Your task to perform on an android device: Open Reddit.com Image 0: 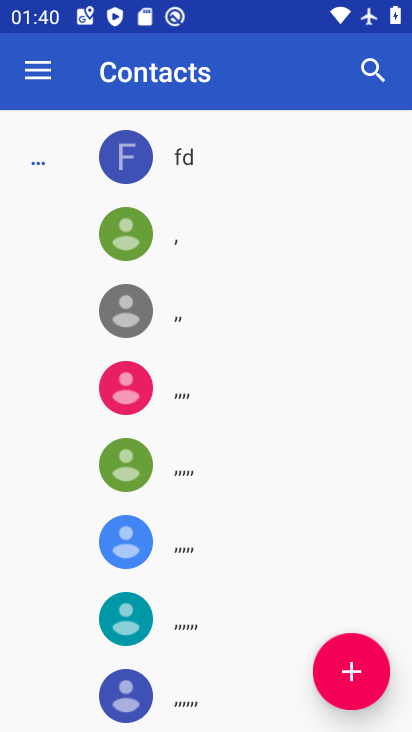
Step 0: press home button
Your task to perform on an android device: Open Reddit.com Image 1: 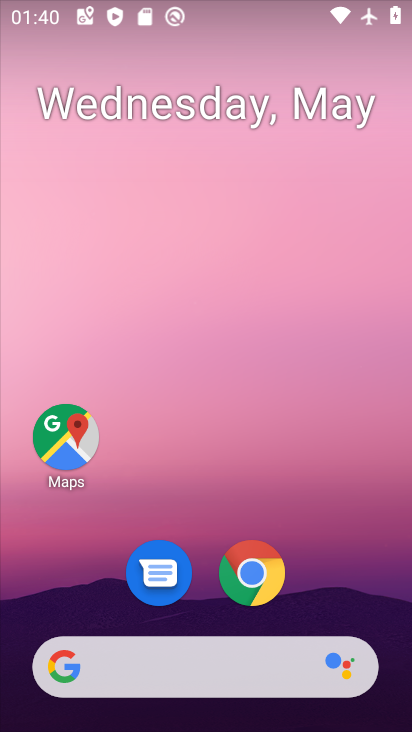
Step 1: drag from (327, 600) to (301, 222)
Your task to perform on an android device: Open Reddit.com Image 2: 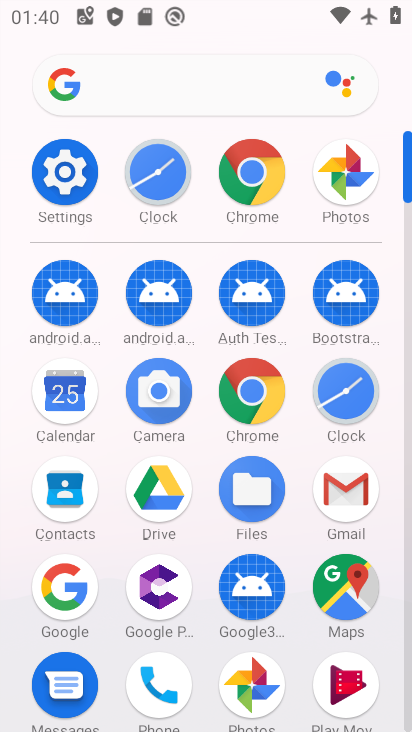
Step 2: click (248, 150)
Your task to perform on an android device: Open Reddit.com Image 3: 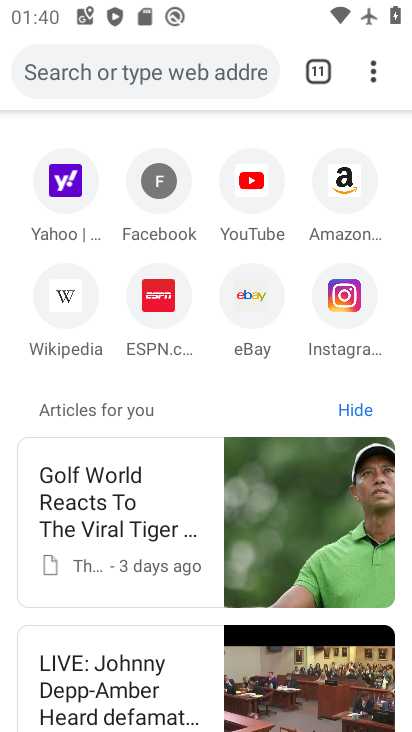
Step 3: click (304, 62)
Your task to perform on an android device: Open Reddit.com Image 4: 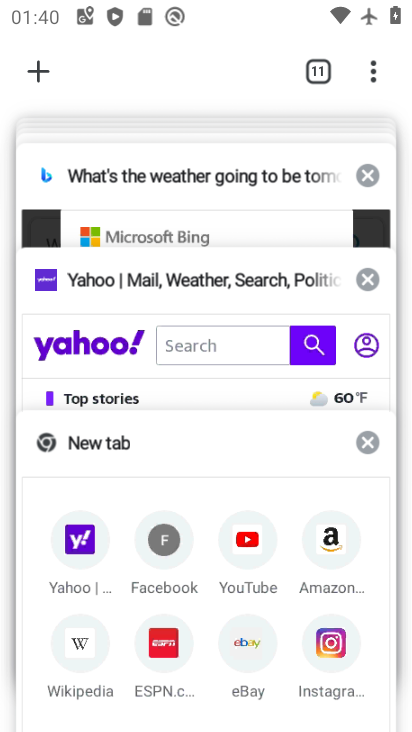
Step 4: drag from (233, 253) to (231, 645)
Your task to perform on an android device: Open Reddit.com Image 5: 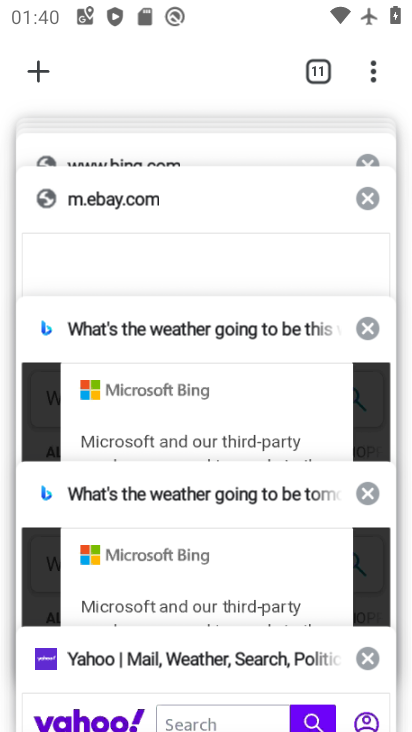
Step 5: drag from (214, 231) to (220, 659)
Your task to perform on an android device: Open Reddit.com Image 6: 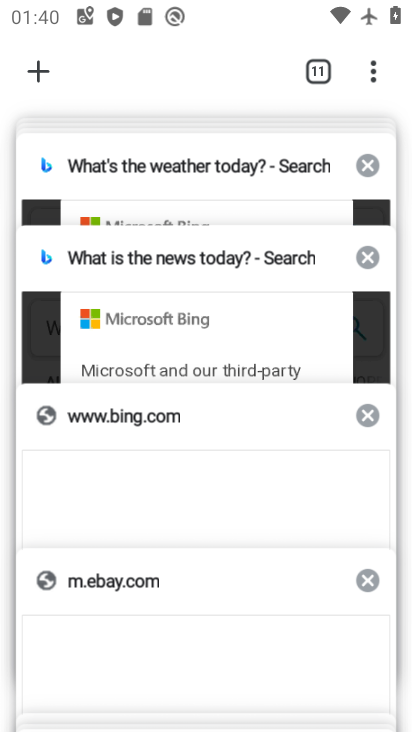
Step 6: drag from (206, 316) to (227, 652)
Your task to perform on an android device: Open Reddit.com Image 7: 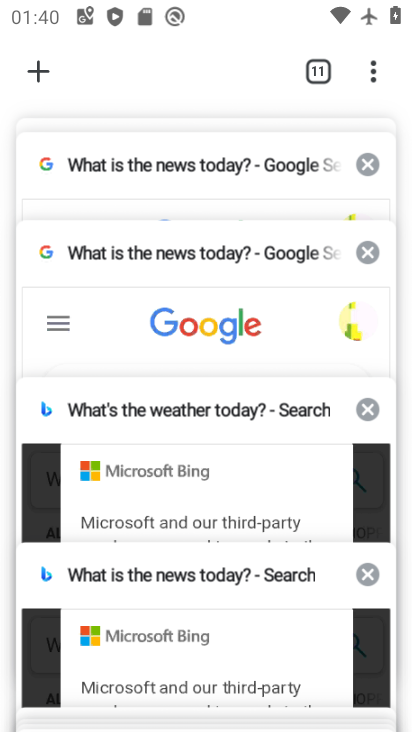
Step 7: drag from (211, 255) to (234, 585)
Your task to perform on an android device: Open Reddit.com Image 8: 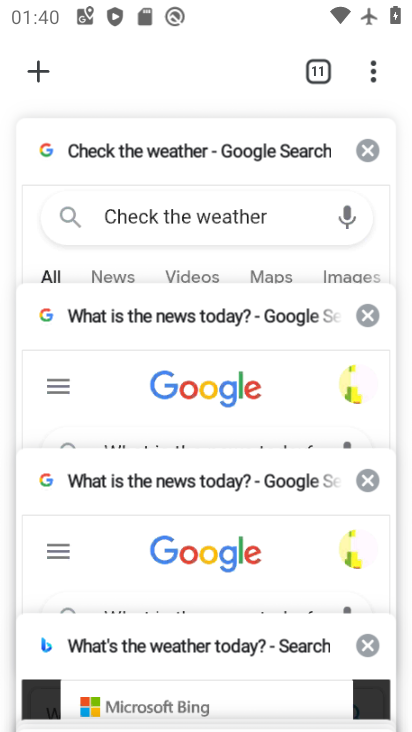
Step 8: drag from (172, 195) to (193, 621)
Your task to perform on an android device: Open Reddit.com Image 9: 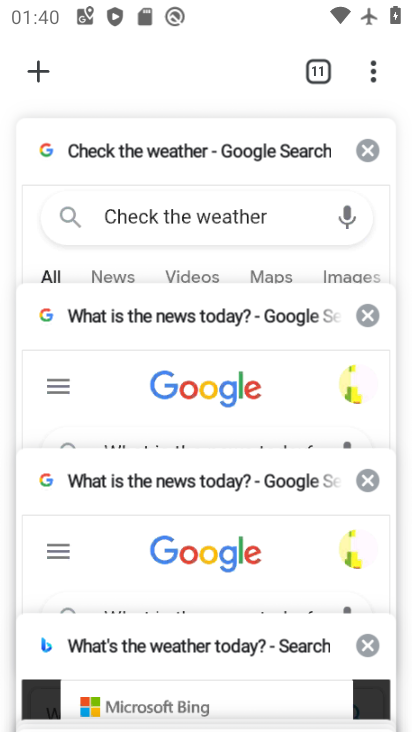
Step 9: drag from (196, 185) to (199, 558)
Your task to perform on an android device: Open Reddit.com Image 10: 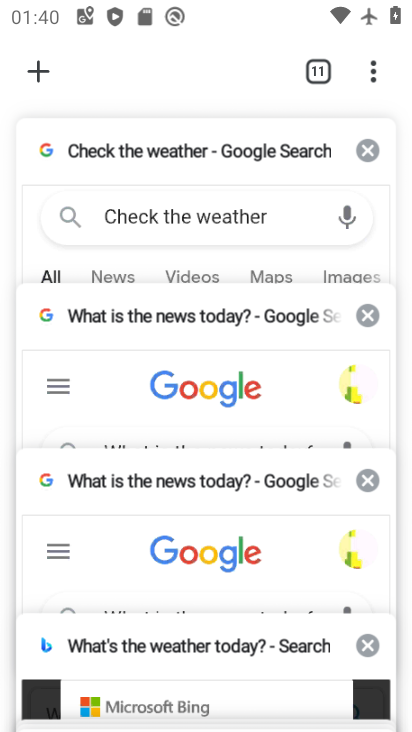
Step 10: click (38, 65)
Your task to perform on an android device: Open Reddit.com Image 11: 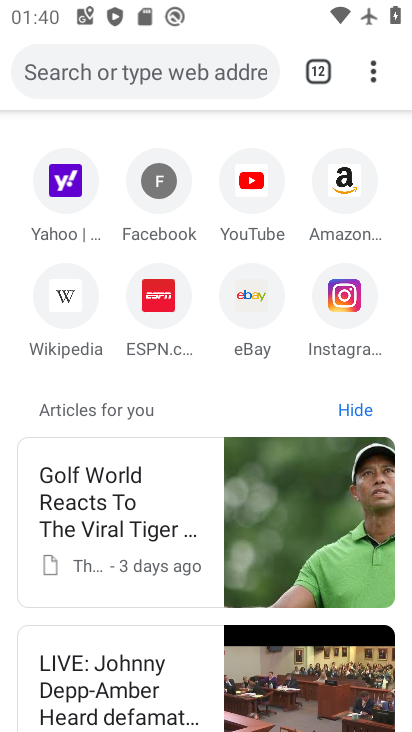
Step 11: click (124, 60)
Your task to perform on an android device: Open Reddit.com Image 12: 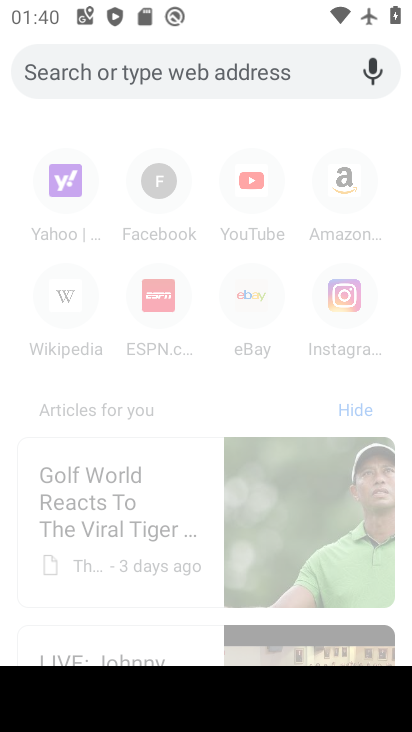
Step 12: type " Reddit.com"
Your task to perform on an android device: Open Reddit.com Image 13: 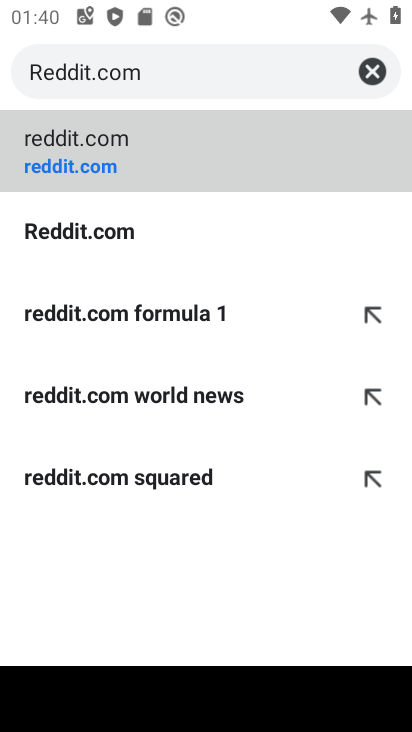
Step 13: click (196, 167)
Your task to perform on an android device: Open Reddit.com Image 14: 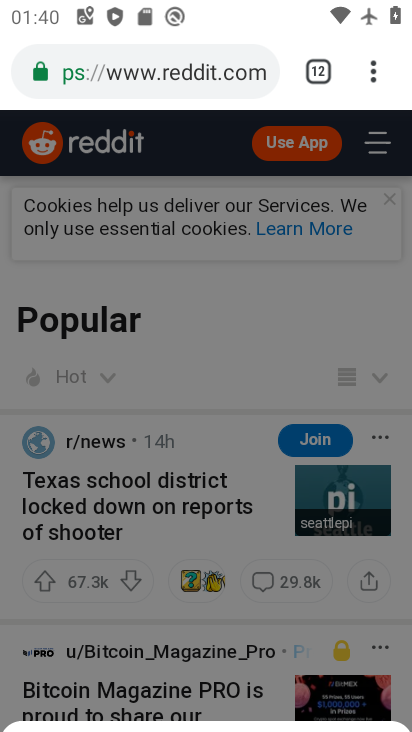
Step 14: task complete